Your task to perform on an android device: turn off wifi Image 0: 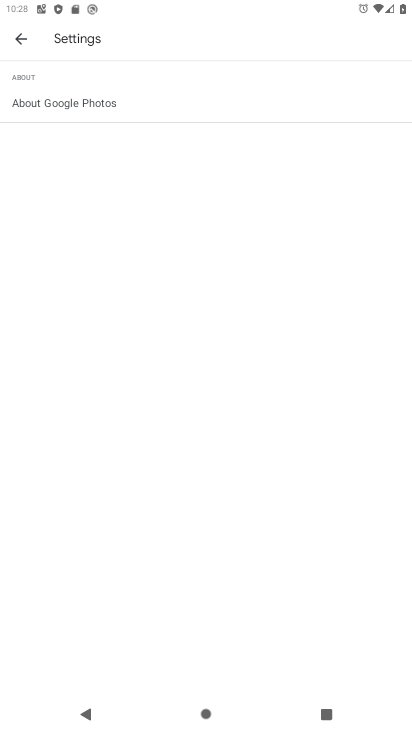
Step 0: press home button
Your task to perform on an android device: turn off wifi Image 1: 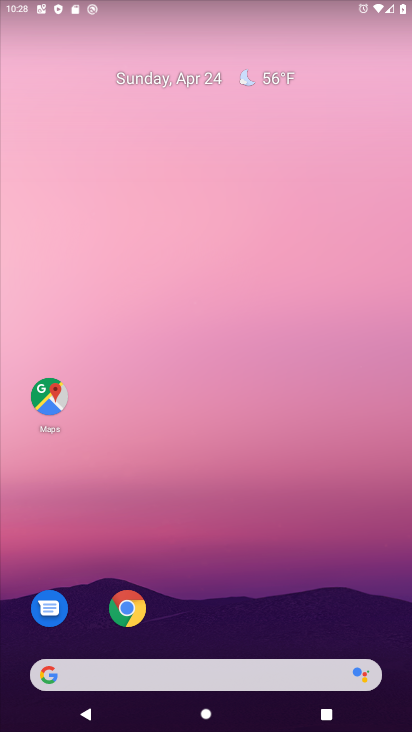
Step 1: drag from (228, 648) to (262, 4)
Your task to perform on an android device: turn off wifi Image 2: 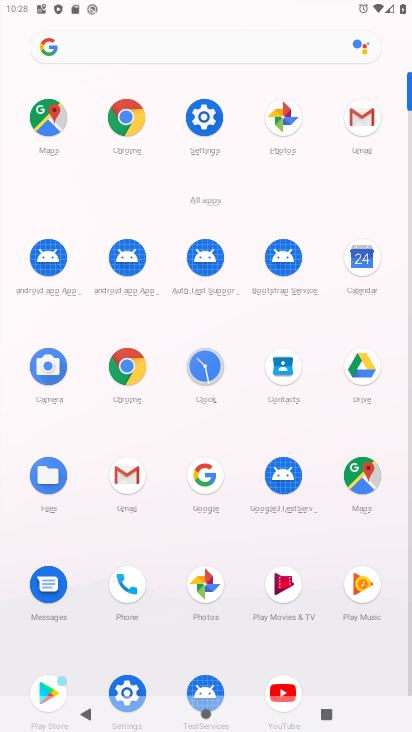
Step 2: click (201, 120)
Your task to perform on an android device: turn off wifi Image 3: 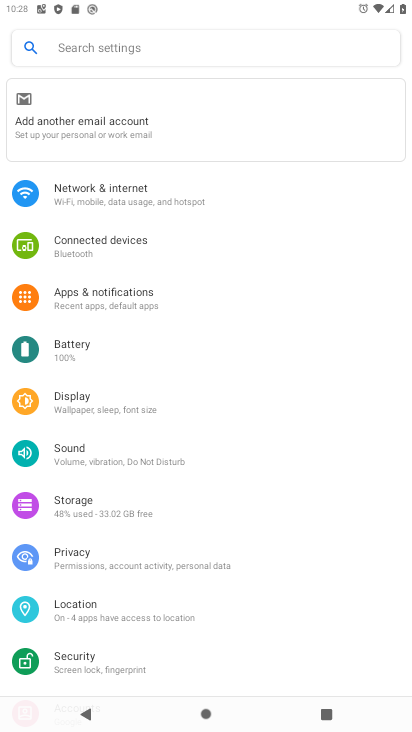
Step 3: click (95, 194)
Your task to perform on an android device: turn off wifi Image 4: 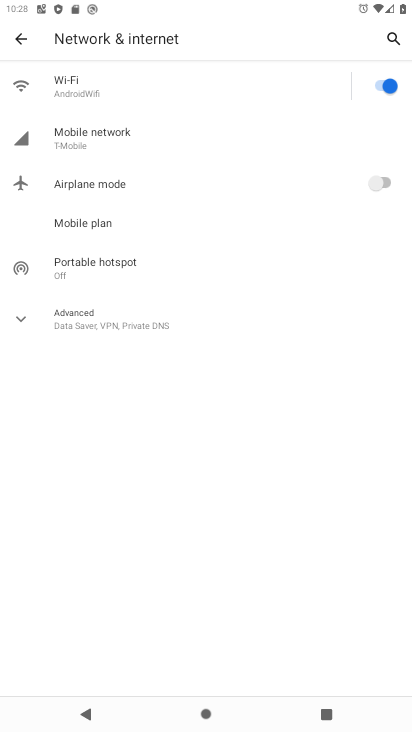
Step 4: click (379, 80)
Your task to perform on an android device: turn off wifi Image 5: 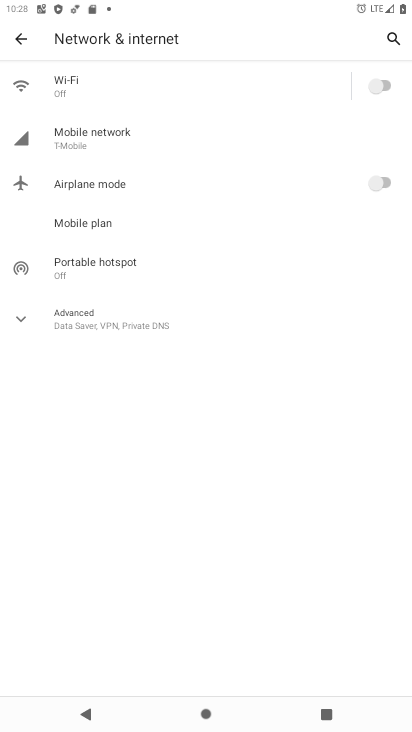
Step 5: task complete